Your task to perform on an android device: Go to internet settings Image 0: 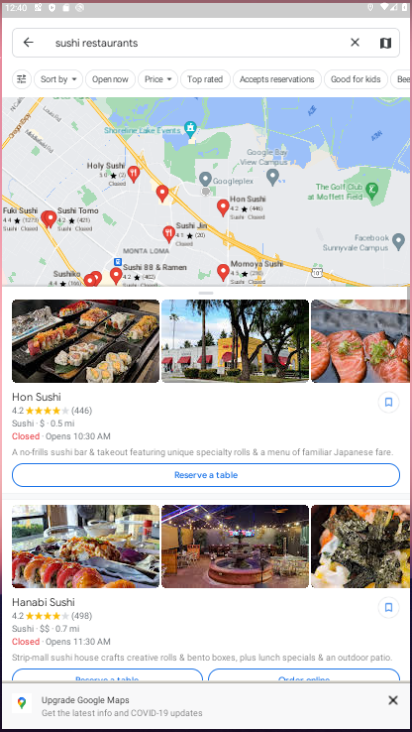
Step 0: click (141, 656)
Your task to perform on an android device: Go to internet settings Image 1: 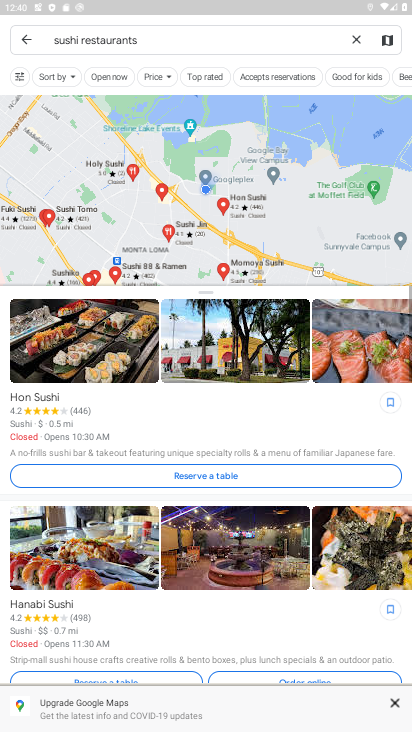
Step 1: press home button
Your task to perform on an android device: Go to internet settings Image 2: 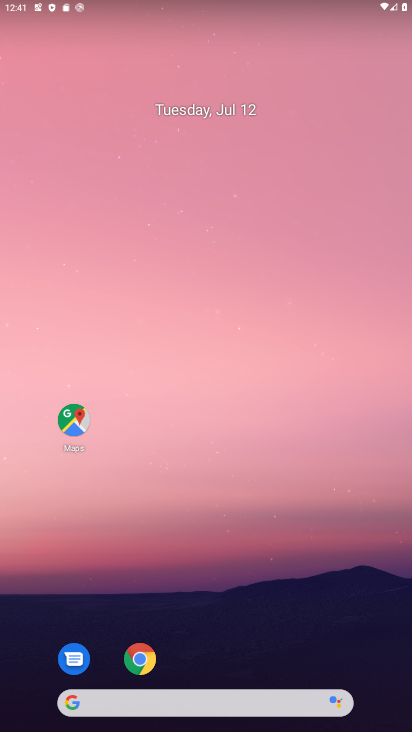
Step 2: click (227, 729)
Your task to perform on an android device: Go to internet settings Image 3: 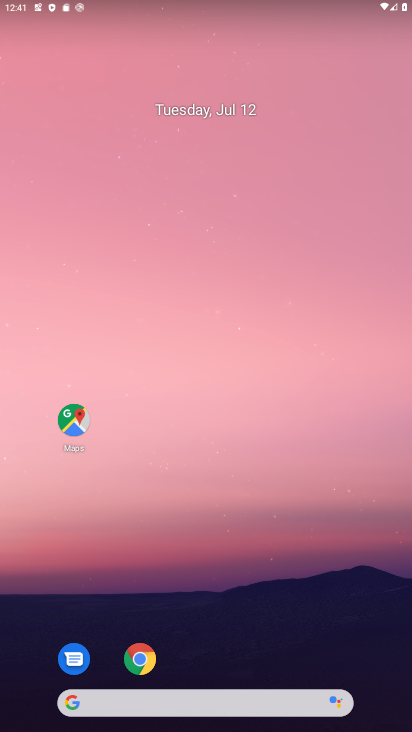
Step 3: drag from (212, 208) to (206, 42)
Your task to perform on an android device: Go to internet settings Image 4: 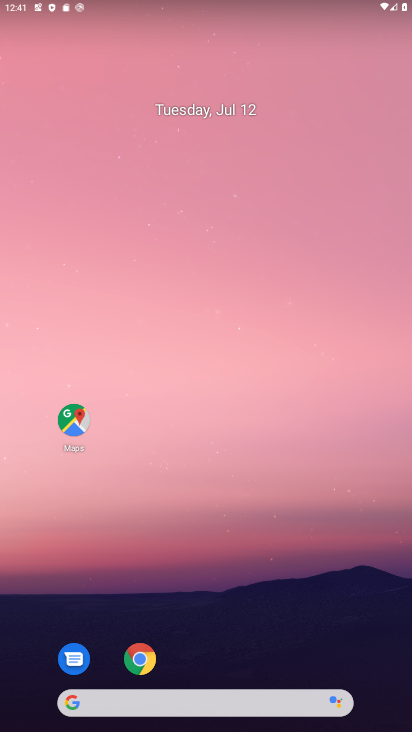
Step 4: drag from (225, 729) to (219, 594)
Your task to perform on an android device: Go to internet settings Image 5: 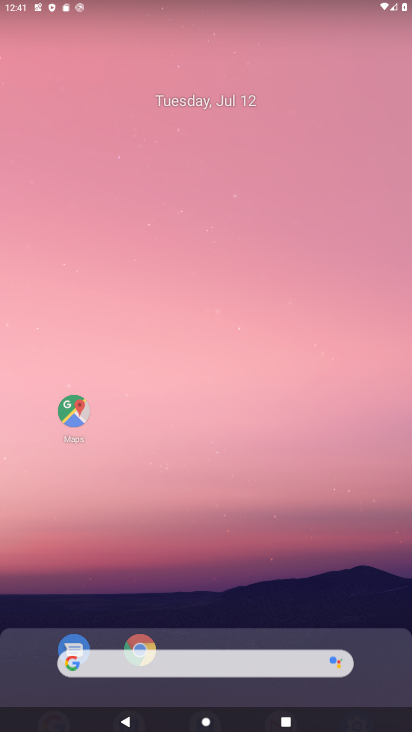
Step 5: click (217, 20)
Your task to perform on an android device: Go to internet settings Image 6: 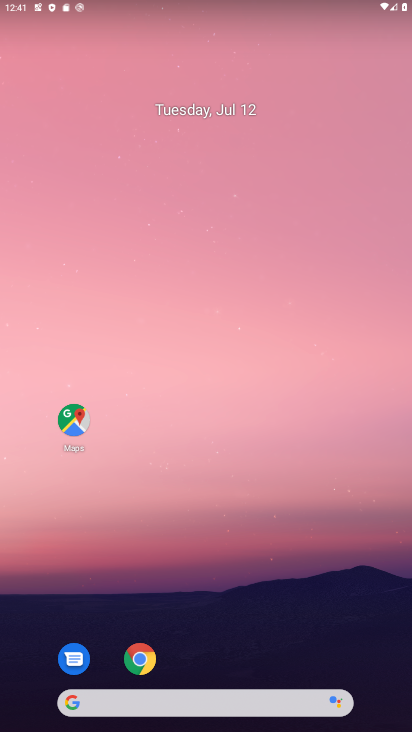
Step 6: click (201, 728)
Your task to perform on an android device: Go to internet settings Image 7: 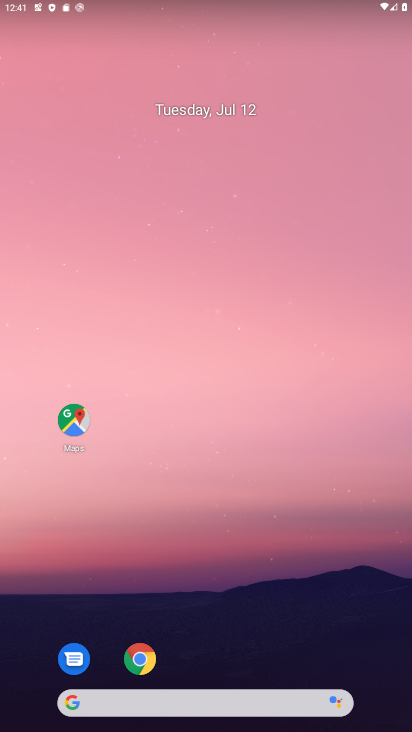
Step 7: drag from (195, 114) to (194, 41)
Your task to perform on an android device: Go to internet settings Image 8: 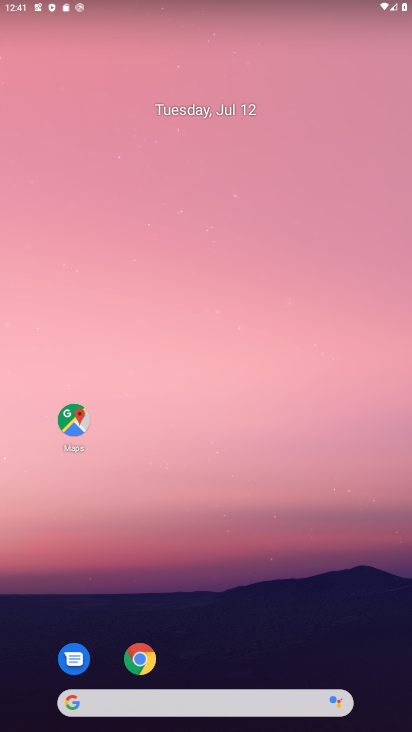
Step 8: drag from (214, 731) to (194, 9)
Your task to perform on an android device: Go to internet settings Image 9: 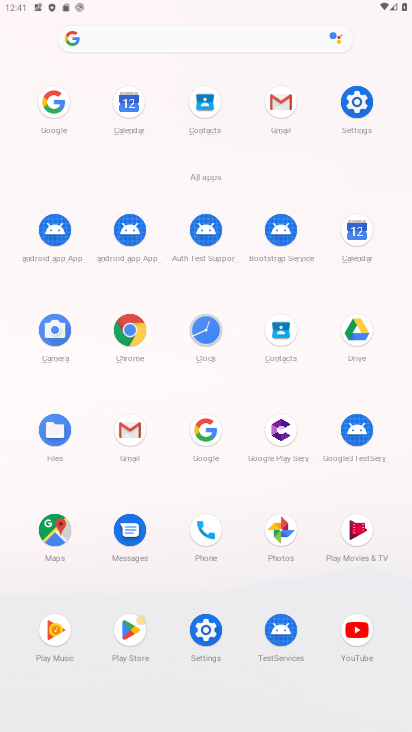
Step 9: click (351, 98)
Your task to perform on an android device: Go to internet settings Image 10: 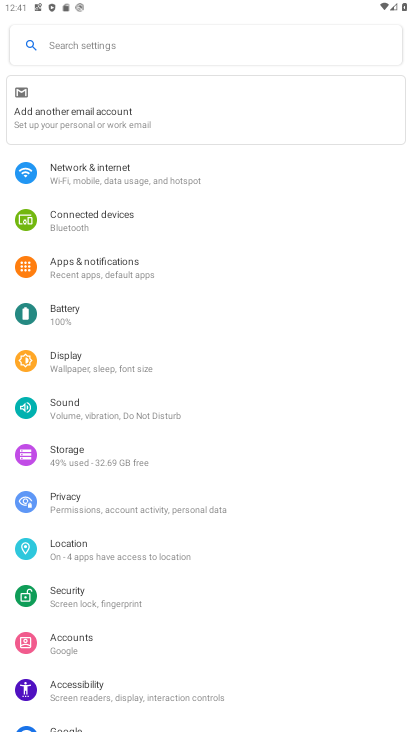
Step 10: click (86, 180)
Your task to perform on an android device: Go to internet settings Image 11: 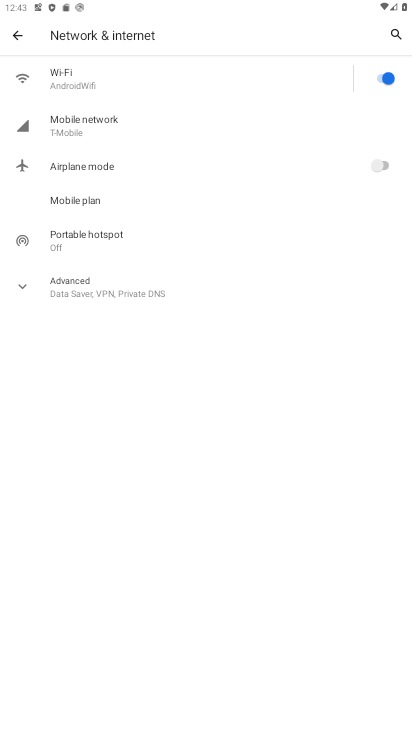
Step 11: task complete